Your task to perform on an android device: Go to Wikipedia Image 0: 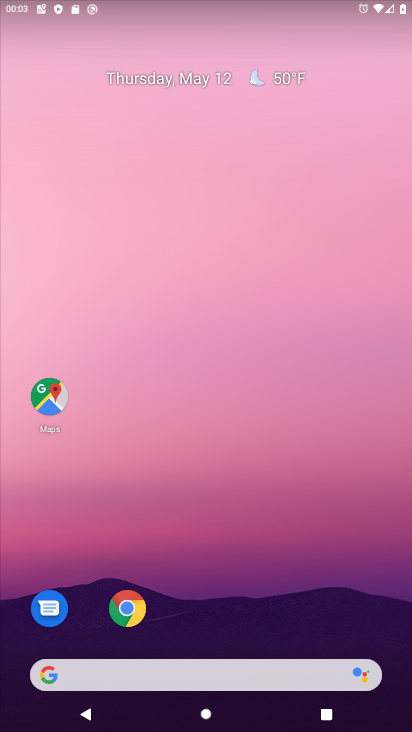
Step 0: click (126, 607)
Your task to perform on an android device: Go to Wikipedia Image 1: 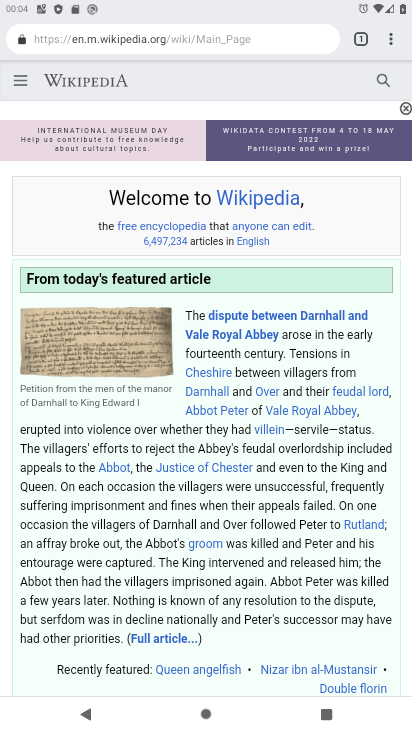
Step 1: click (213, 41)
Your task to perform on an android device: Go to Wikipedia Image 2: 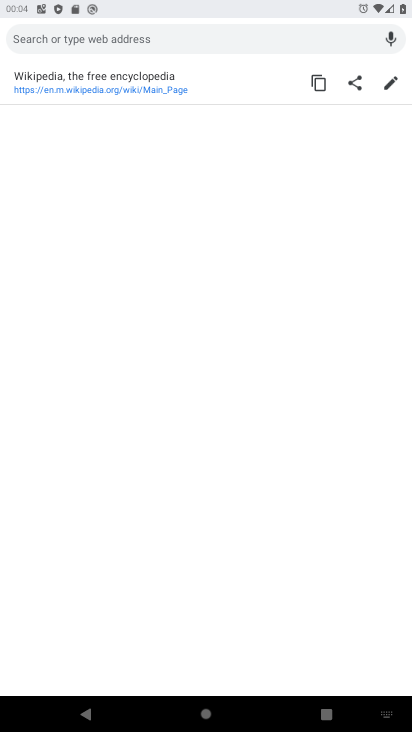
Step 2: type "Wikipedia"
Your task to perform on an android device: Go to Wikipedia Image 3: 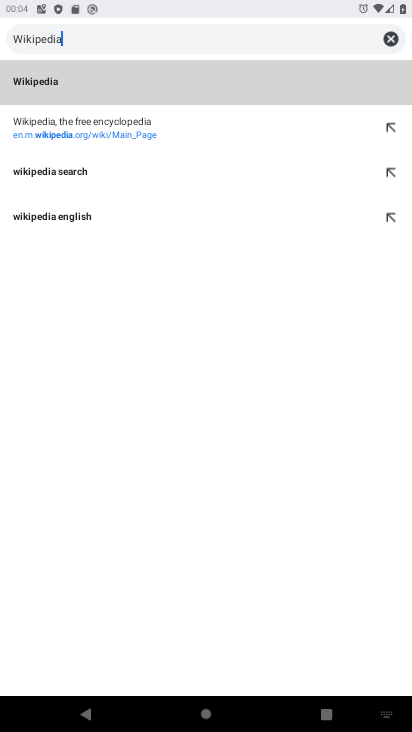
Step 3: click (80, 95)
Your task to perform on an android device: Go to Wikipedia Image 4: 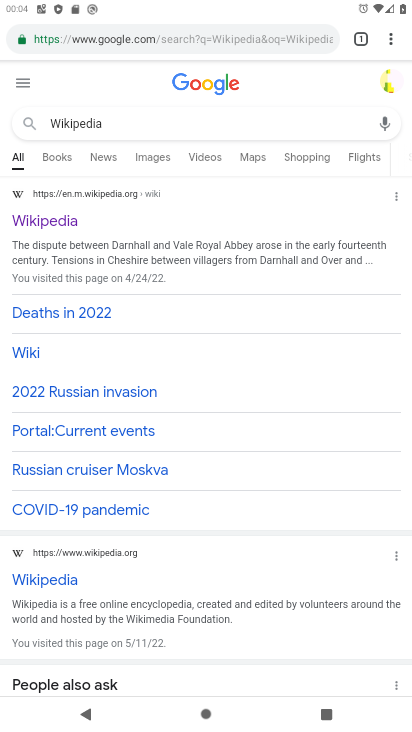
Step 4: click (66, 228)
Your task to perform on an android device: Go to Wikipedia Image 5: 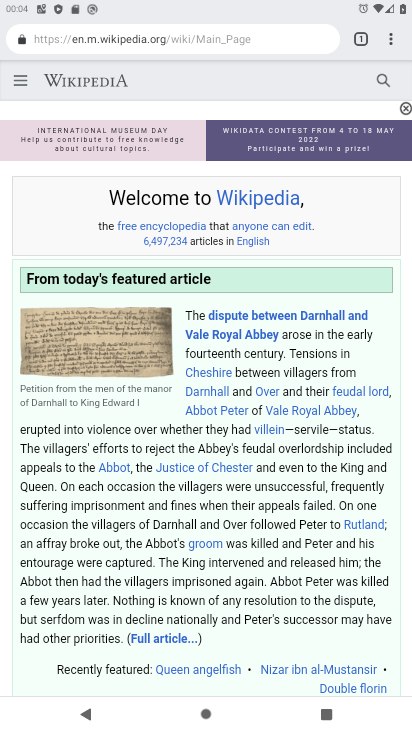
Step 5: task complete